Your task to perform on an android device: search for starred emails in the gmail app Image 0: 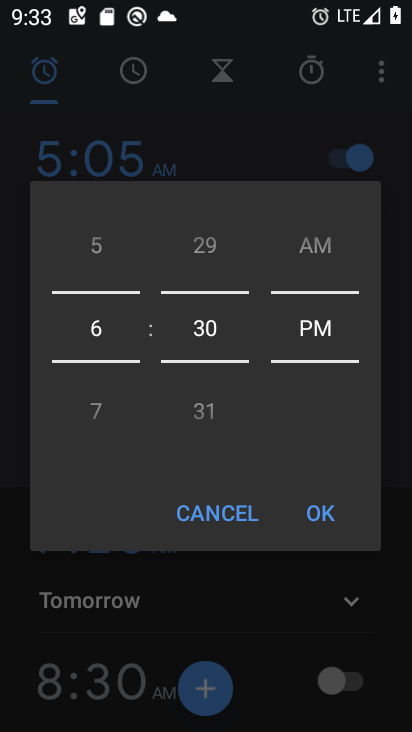
Step 0: press home button
Your task to perform on an android device: search for starred emails in the gmail app Image 1: 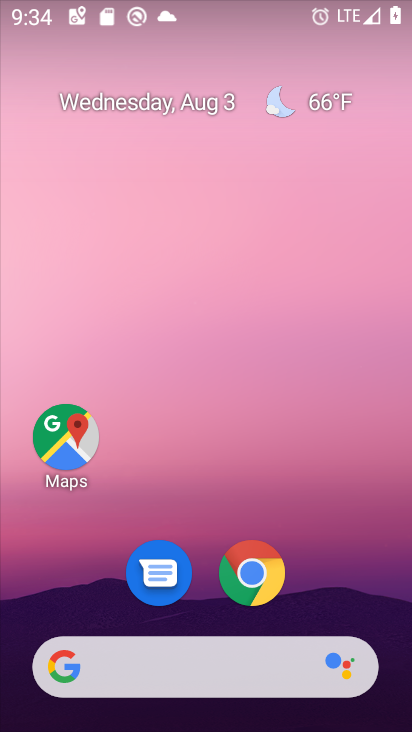
Step 1: drag from (319, 601) to (333, 0)
Your task to perform on an android device: search for starred emails in the gmail app Image 2: 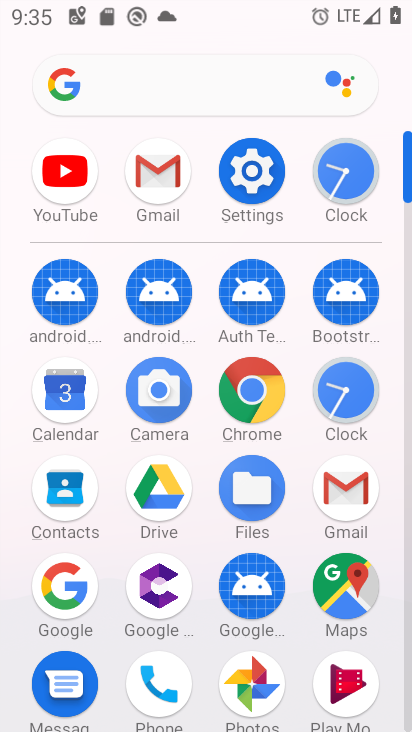
Step 2: click (164, 179)
Your task to perform on an android device: search for starred emails in the gmail app Image 3: 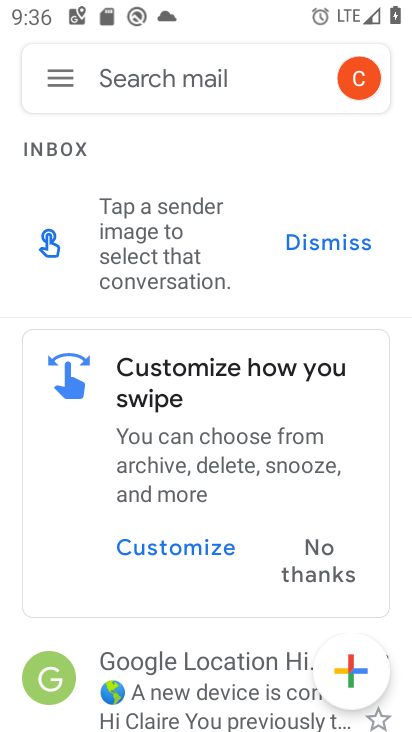
Step 3: click (54, 81)
Your task to perform on an android device: search for starred emails in the gmail app Image 4: 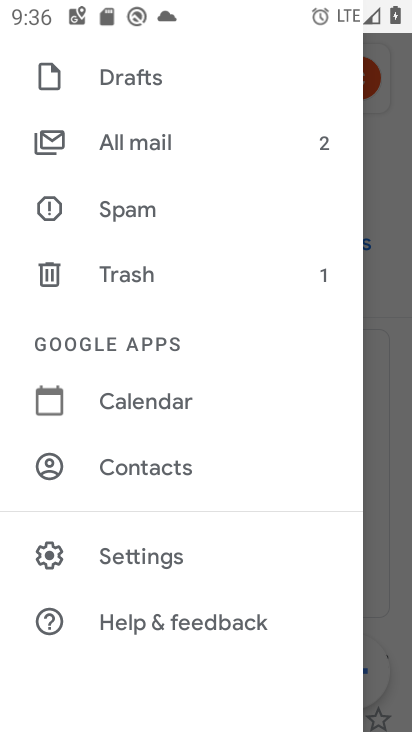
Step 4: drag from (144, 249) to (222, 625)
Your task to perform on an android device: search for starred emails in the gmail app Image 5: 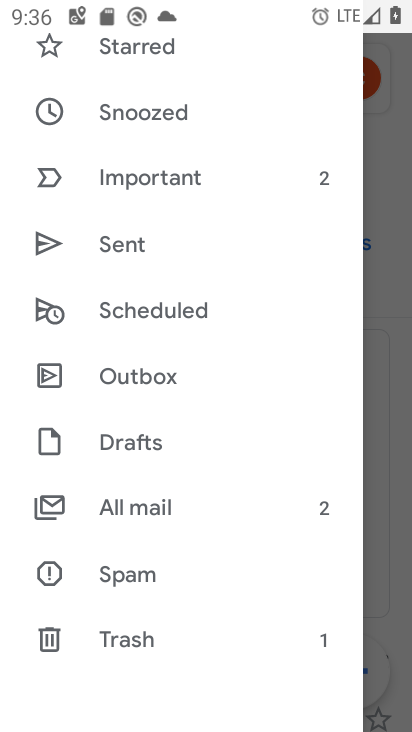
Step 5: click (125, 54)
Your task to perform on an android device: search for starred emails in the gmail app Image 6: 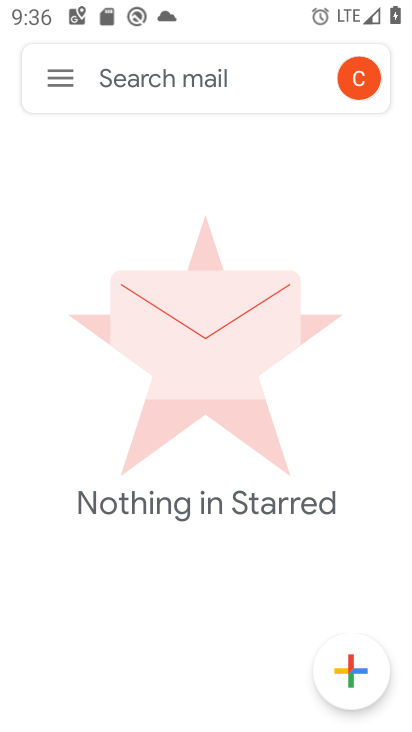
Step 6: task complete